Your task to perform on an android device: Open Chrome and go to the settings page Image 0: 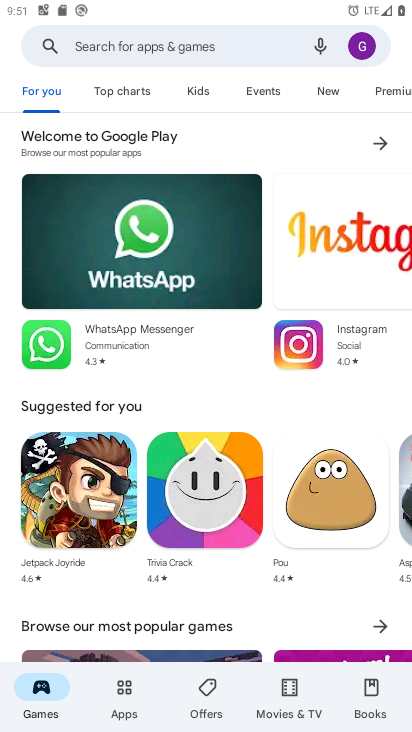
Step 0: press home button
Your task to perform on an android device: Open Chrome and go to the settings page Image 1: 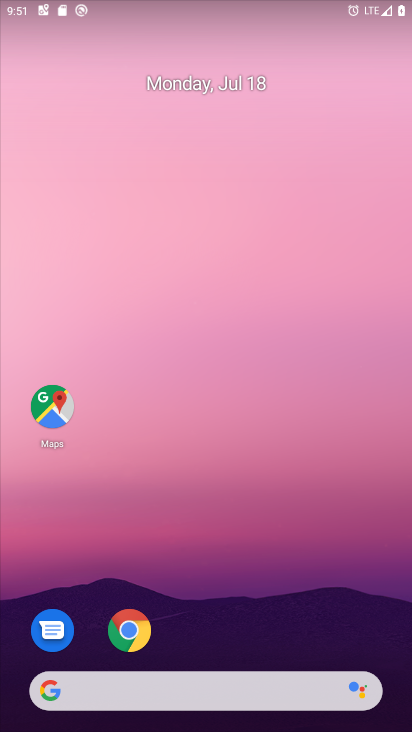
Step 1: click (118, 623)
Your task to perform on an android device: Open Chrome and go to the settings page Image 2: 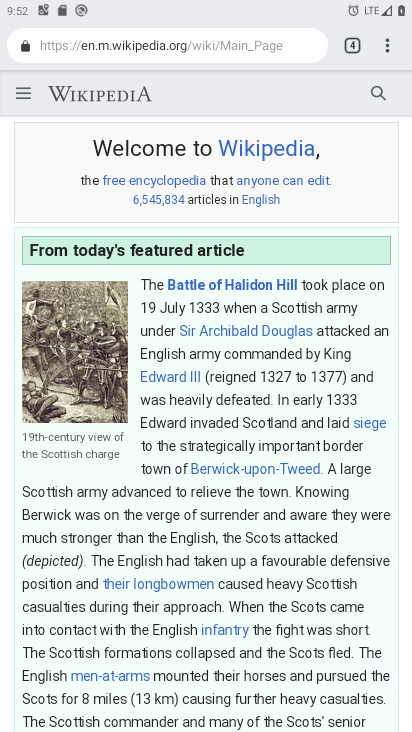
Step 2: click (393, 37)
Your task to perform on an android device: Open Chrome and go to the settings page Image 3: 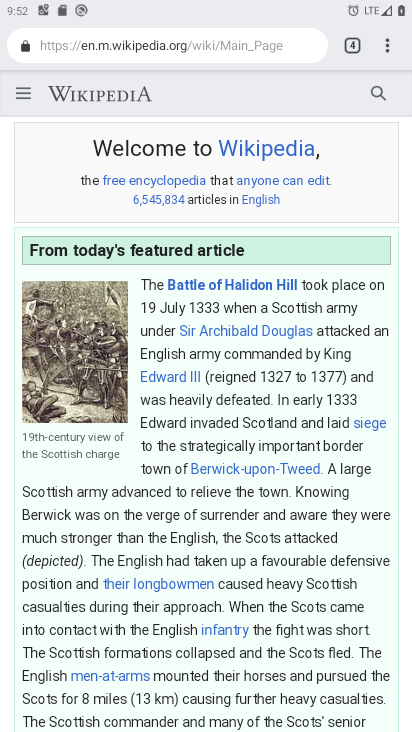
Step 3: task complete